Your task to perform on an android device: Open Wikipedia Image 0: 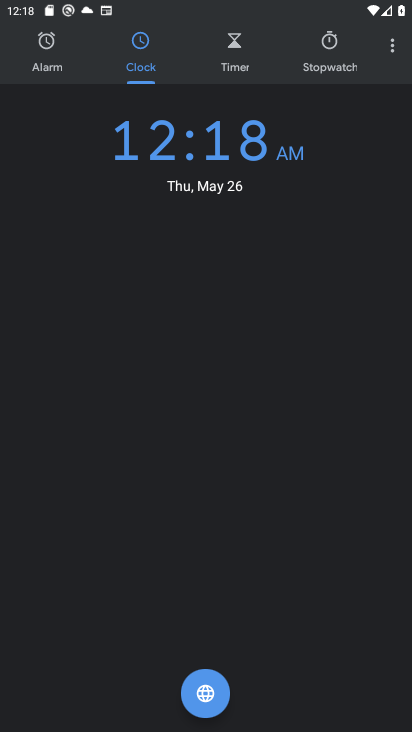
Step 0: press home button
Your task to perform on an android device: Open Wikipedia Image 1: 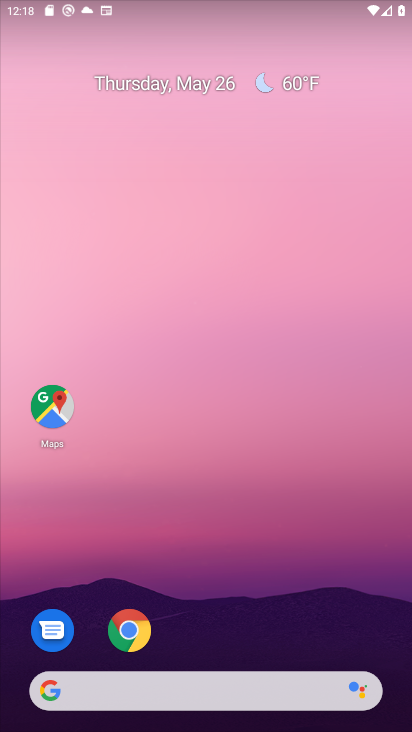
Step 1: drag from (358, 578) to (277, 122)
Your task to perform on an android device: Open Wikipedia Image 2: 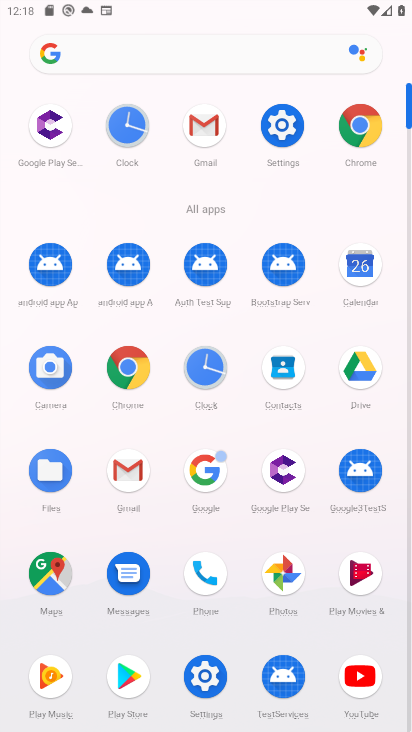
Step 2: click (352, 138)
Your task to perform on an android device: Open Wikipedia Image 3: 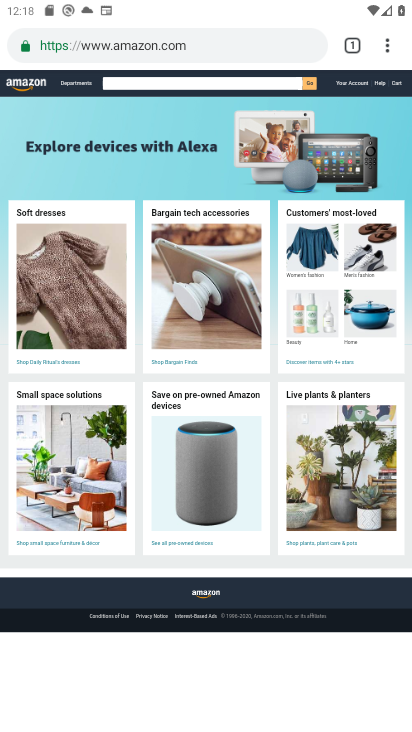
Step 3: drag from (242, 251) to (330, 587)
Your task to perform on an android device: Open Wikipedia Image 4: 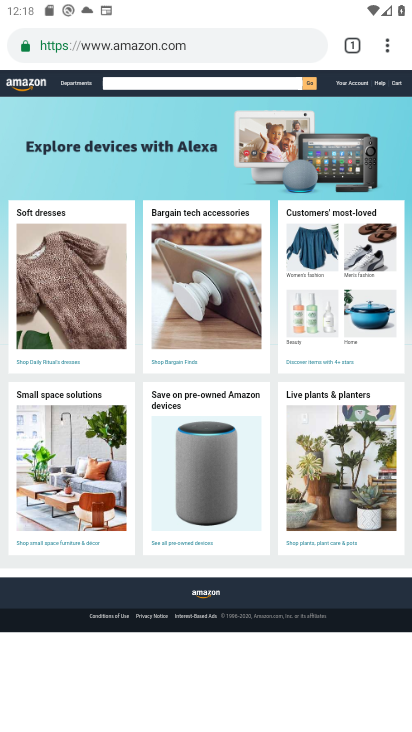
Step 4: click (147, 50)
Your task to perform on an android device: Open Wikipedia Image 5: 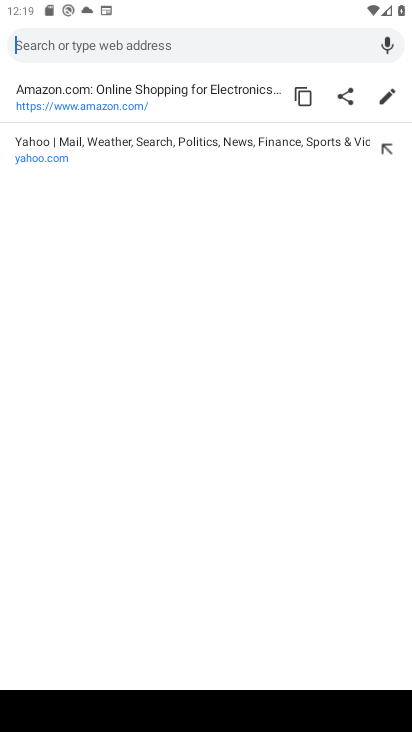
Step 5: type "wikipedia"
Your task to perform on an android device: Open Wikipedia Image 6: 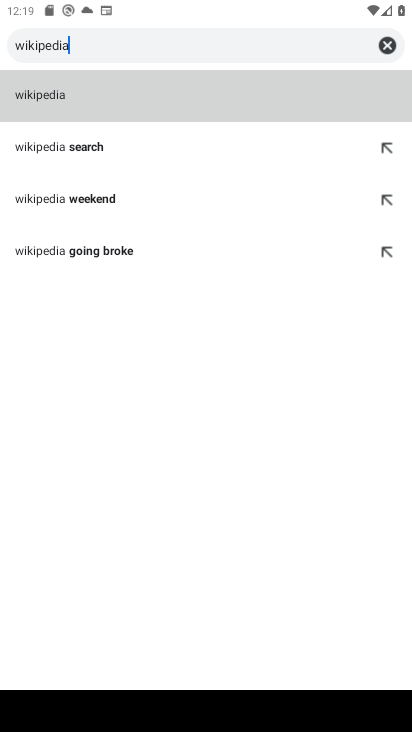
Step 6: click (44, 91)
Your task to perform on an android device: Open Wikipedia Image 7: 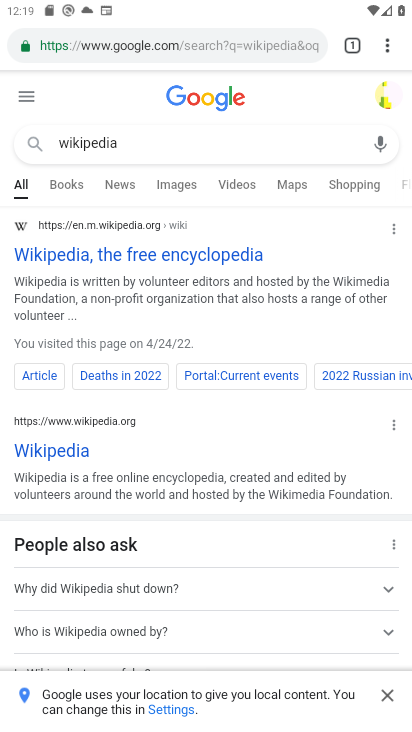
Step 7: click (137, 257)
Your task to perform on an android device: Open Wikipedia Image 8: 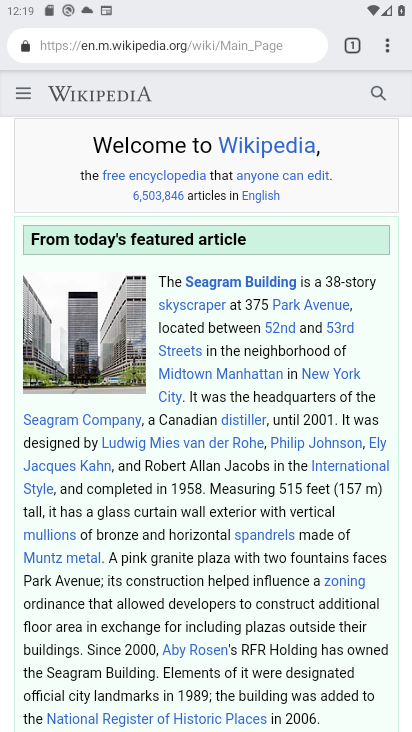
Step 8: task complete